Your task to perform on an android device: Show the shopping cart on walmart. Image 0: 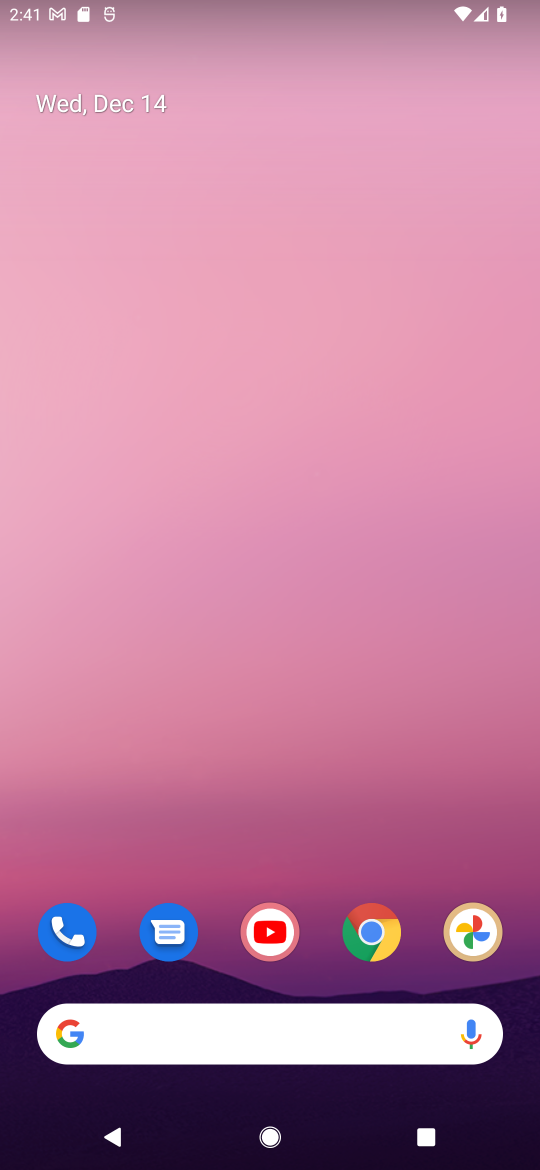
Step 0: click (246, 1047)
Your task to perform on an android device: Show the shopping cart on walmart. Image 1: 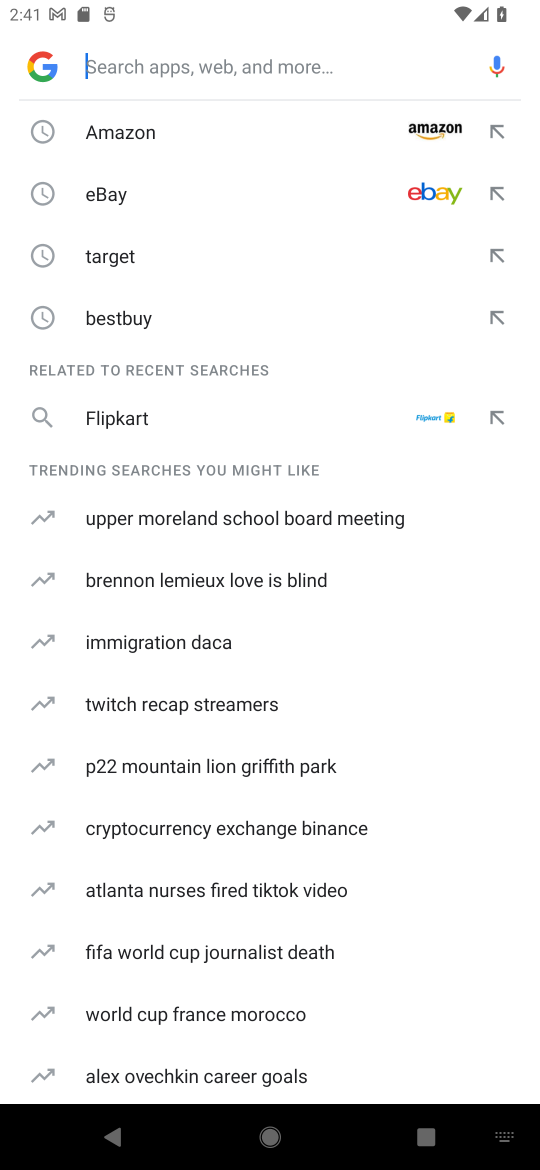
Step 1: type "walmart"
Your task to perform on an android device: Show the shopping cart on walmart. Image 2: 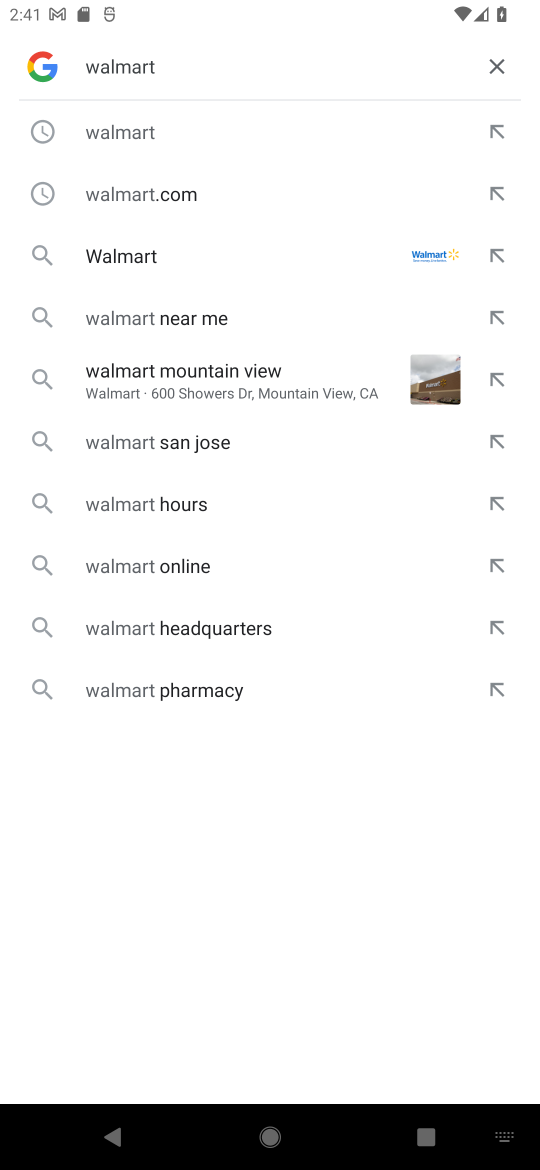
Step 2: click (318, 269)
Your task to perform on an android device: Show the shopping cart on walmart. Image 3: 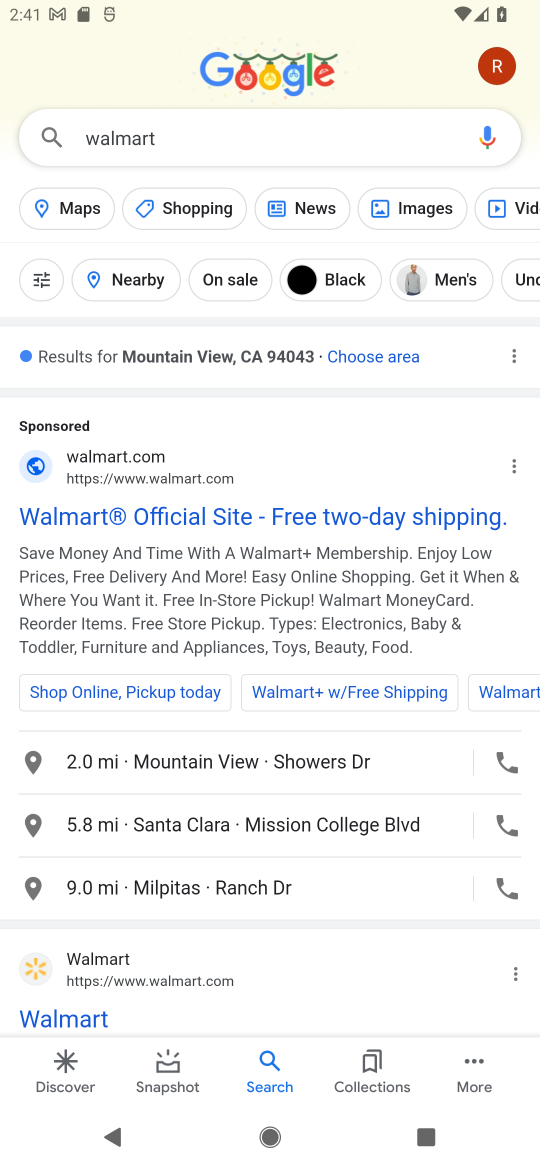
Step 3: click (69, 1010)
Your task to perform on an android device: Show the shopping cart on walmart. Image 4: 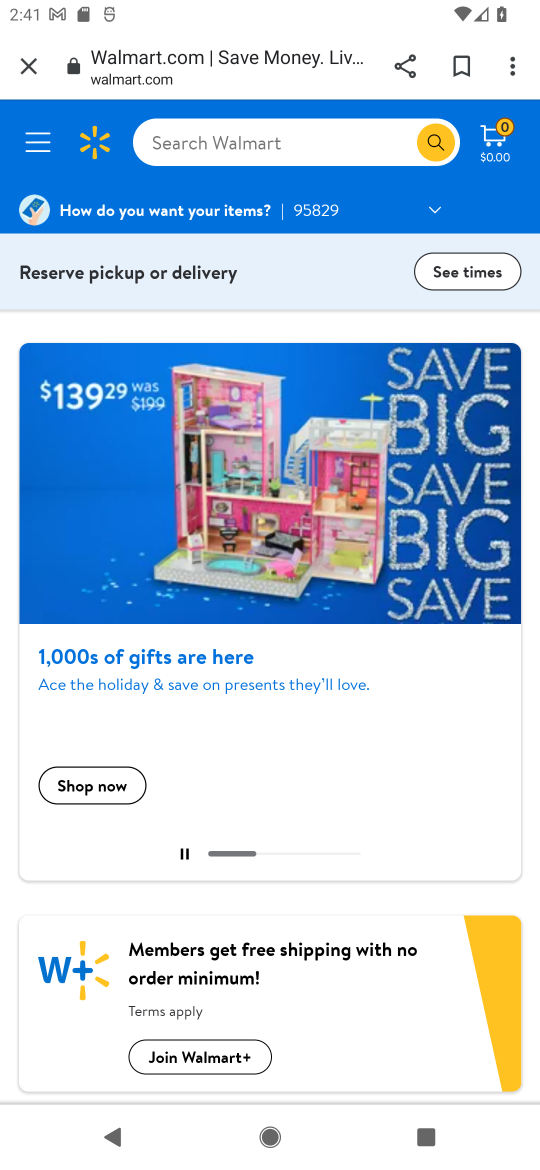
Step 4: click (490, 142)
Your task to perform on an android device: Show the shopping cart on walmart. Image 5: 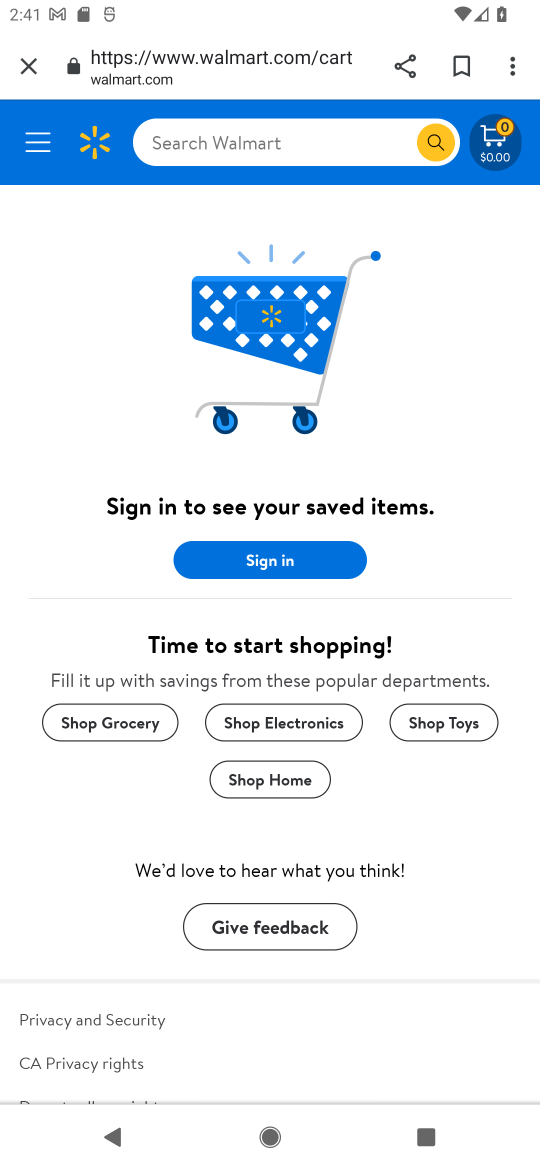
Step 5: task complete